Your task to perform on an android device: open app "VLC for Android" (install if not already installed) Image 0: 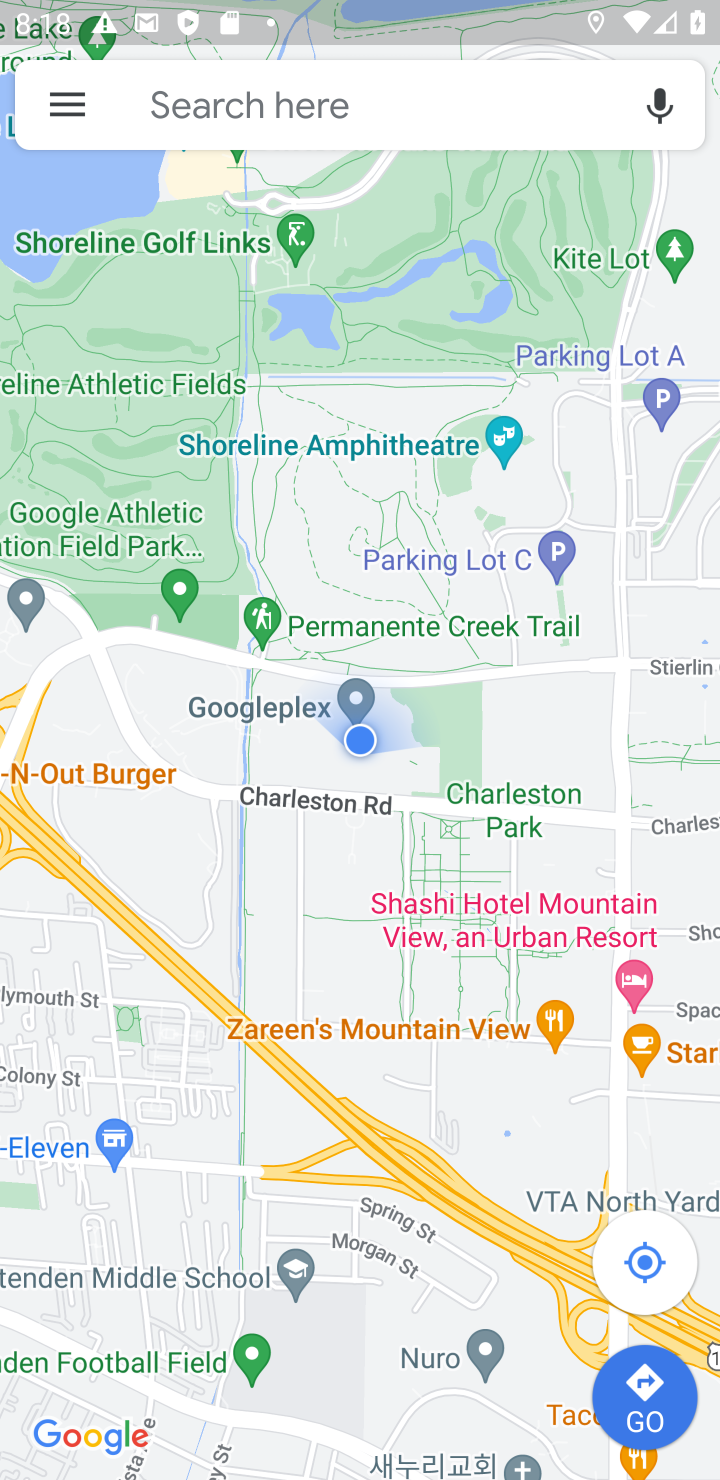
Step 0: press home button
Your task to perform on an android device: open app "VLC for Android" (install if not already installed) Image 1: 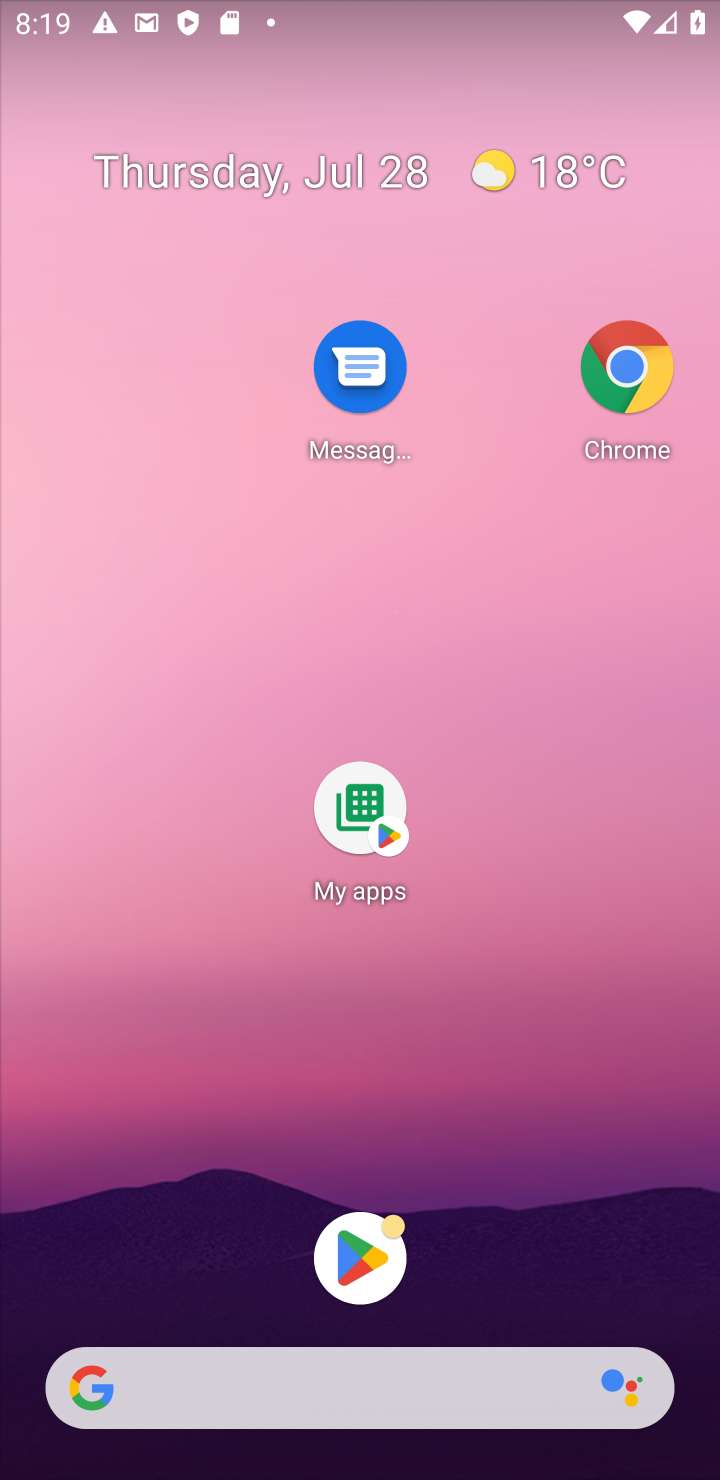
Step 1: click (354, 1243)
Your task to perform on an android device: open app "VLC for Android" (install if not already installed) Image 2: 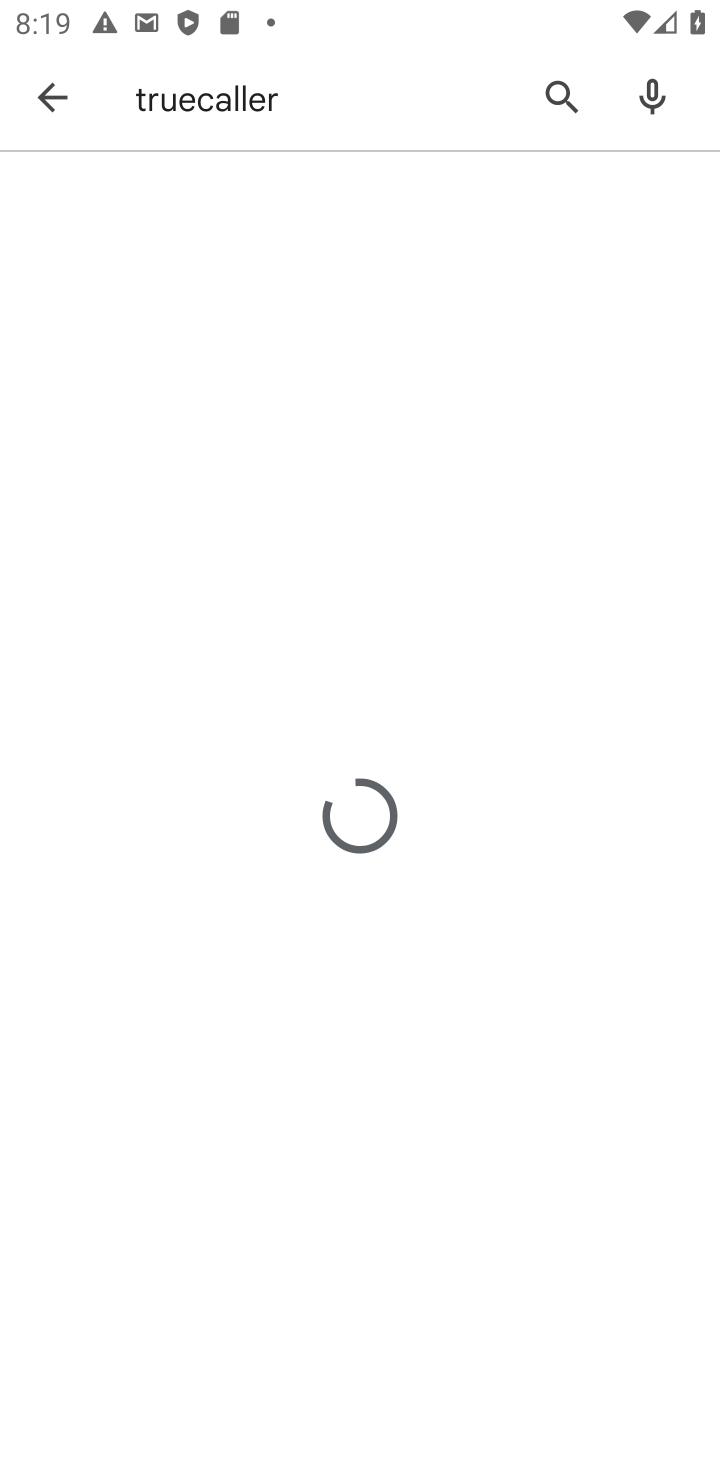
Step 2: click (559, 95)
Your task to perform on an android device: open app "VLC for Android" (install if not already installed) Image 3: 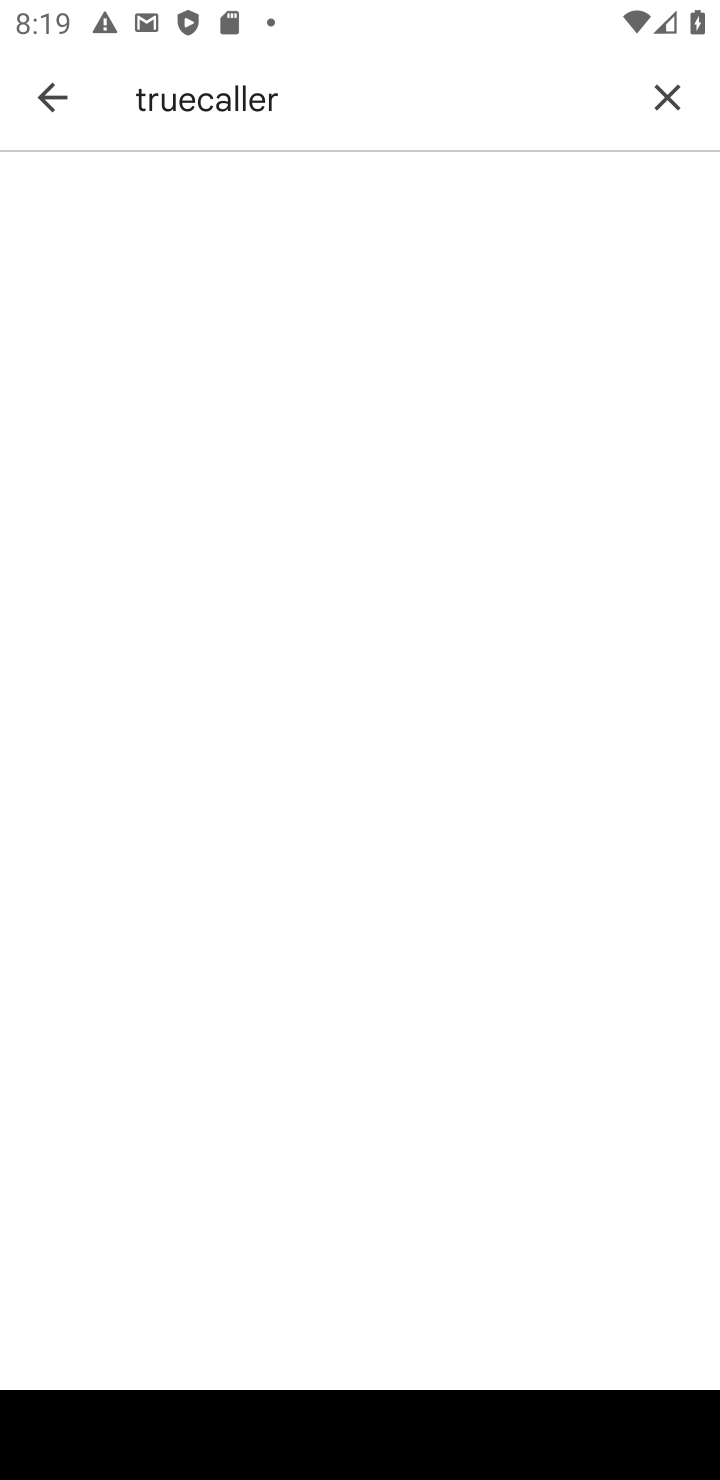
Step 3: click (559, 95)
Your task to perform on an android device: open app "VLC for Android" (install if not already installed) Image 4: 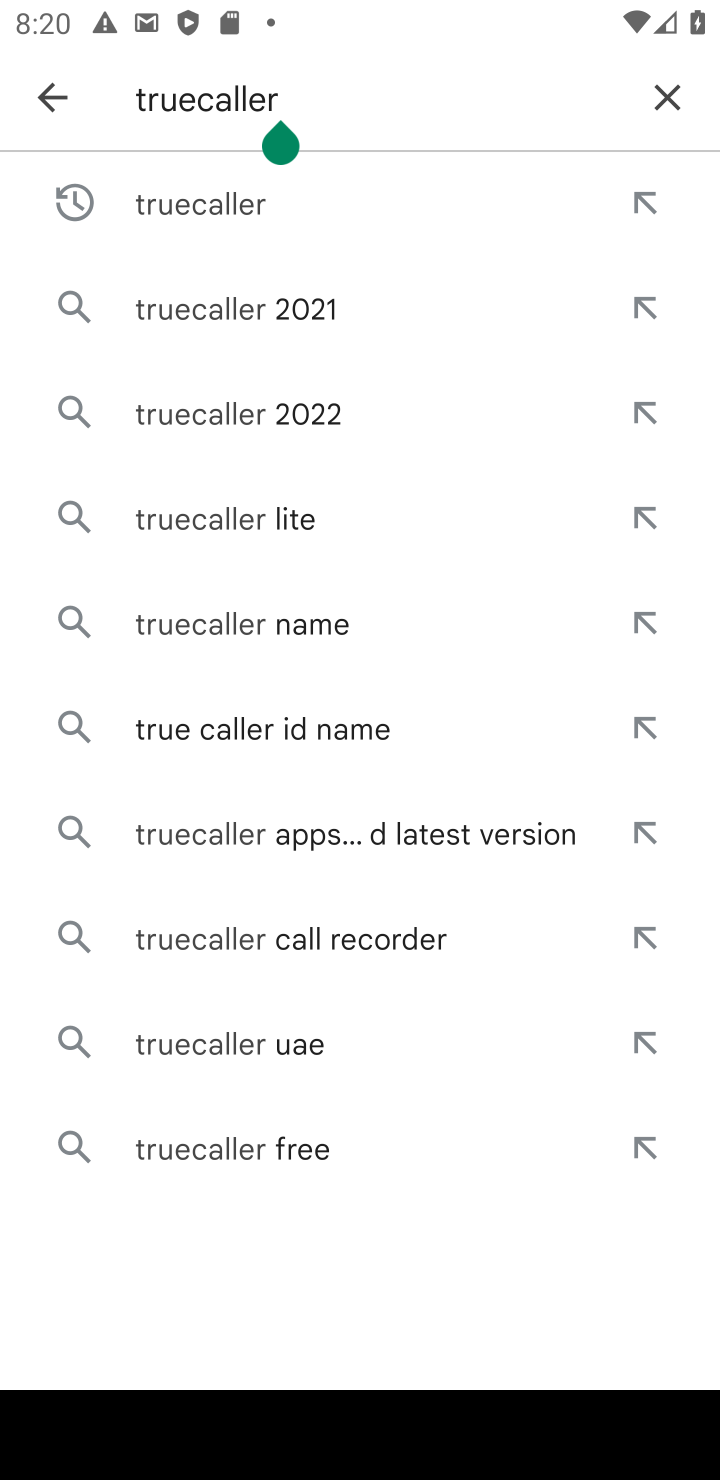
Step 4: click (662, 85)
Your task to perform on an android device: open app "VLC for Android" (install if not already installed) Image 5: 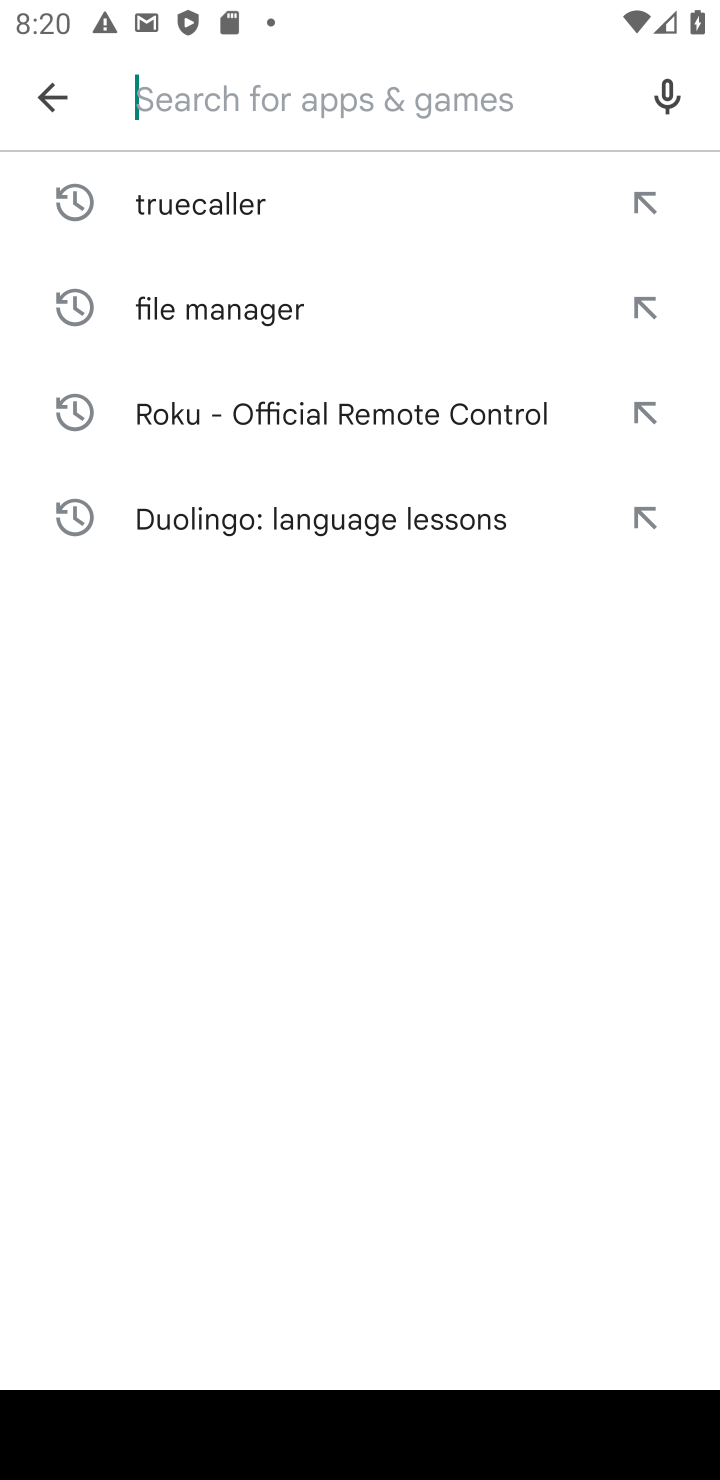
Step 5: press enter
Your task to perform on an android device: open app "VLC for Android" (install if not already installed) Image 6: 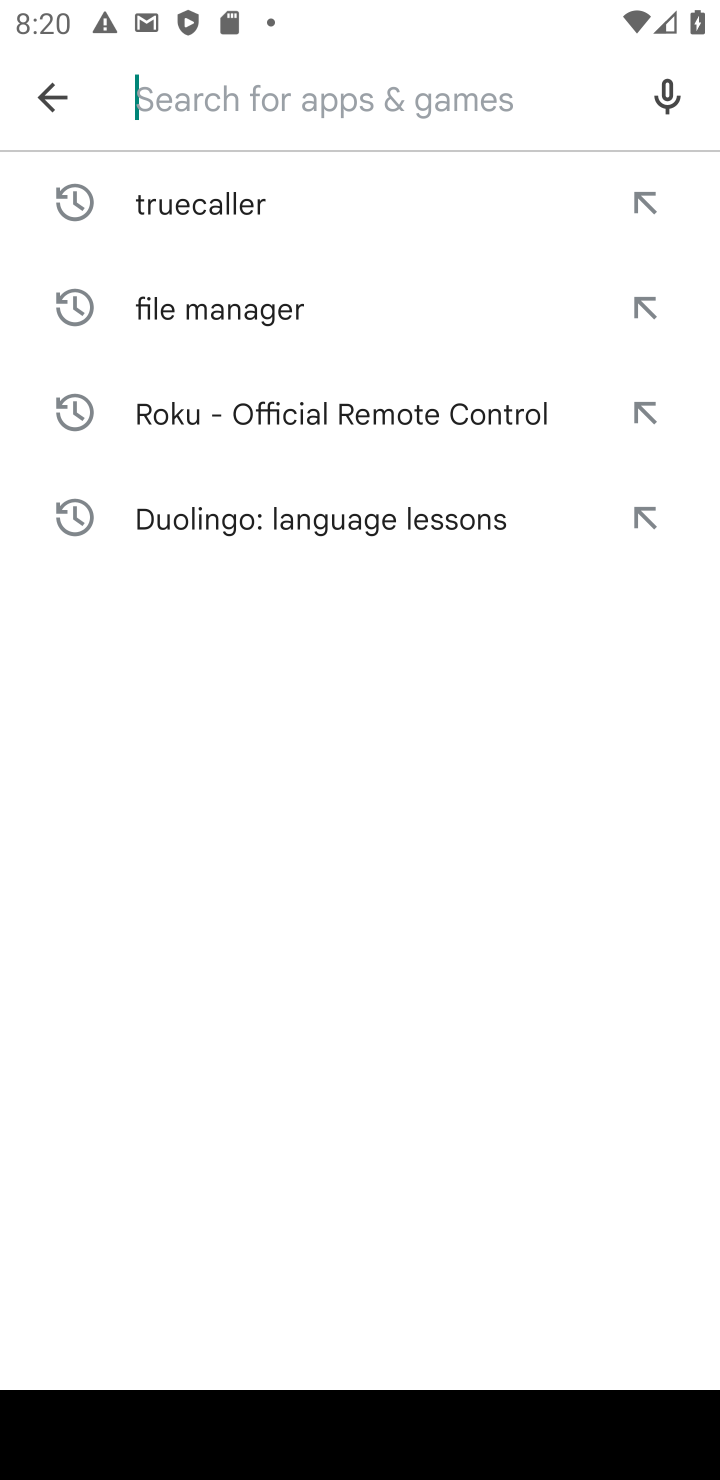
Step 6: type "VLC for Android"
Your task to perform on an android device: open app "VLC for Android" (install if not already installed) Image 7: 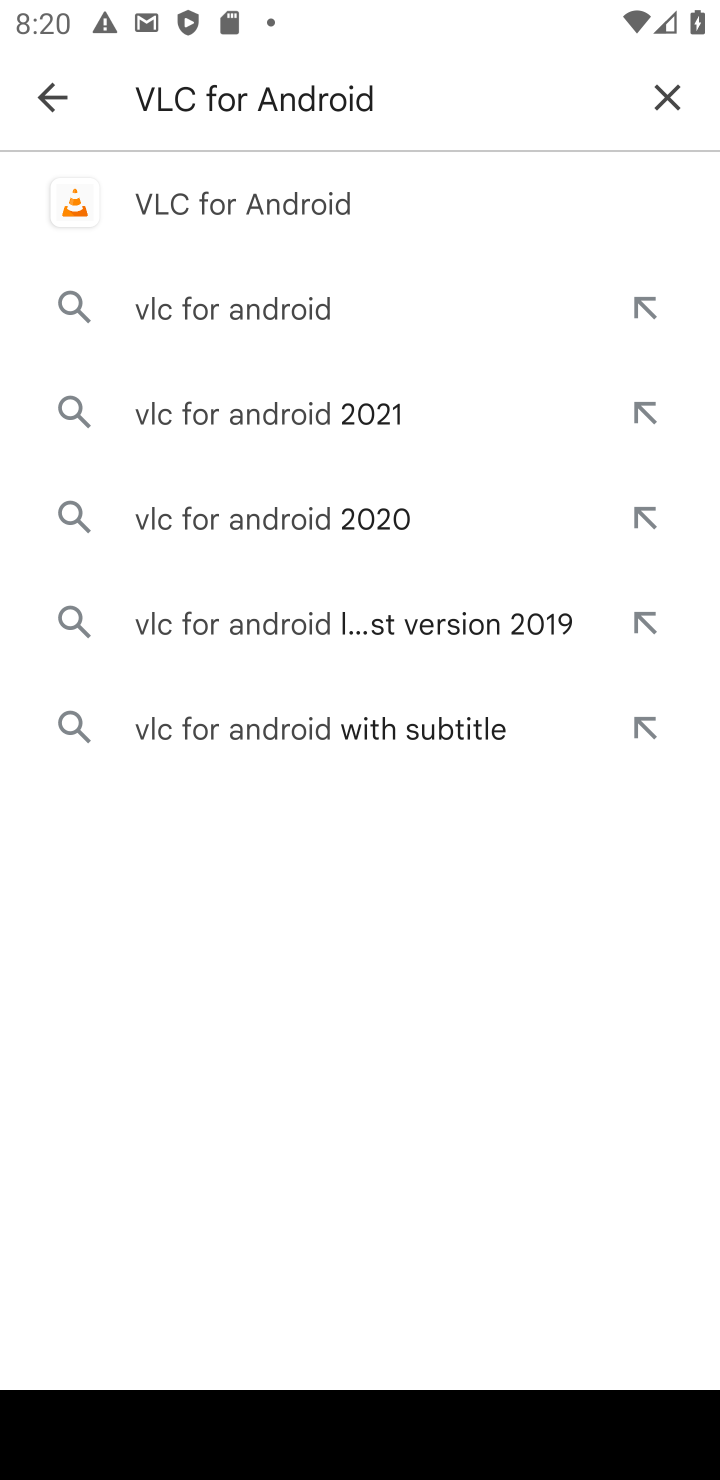
Step 7: press enter
Your task to perform on an android device: open app "VLC for Android" (install if not already installed) Image 8: 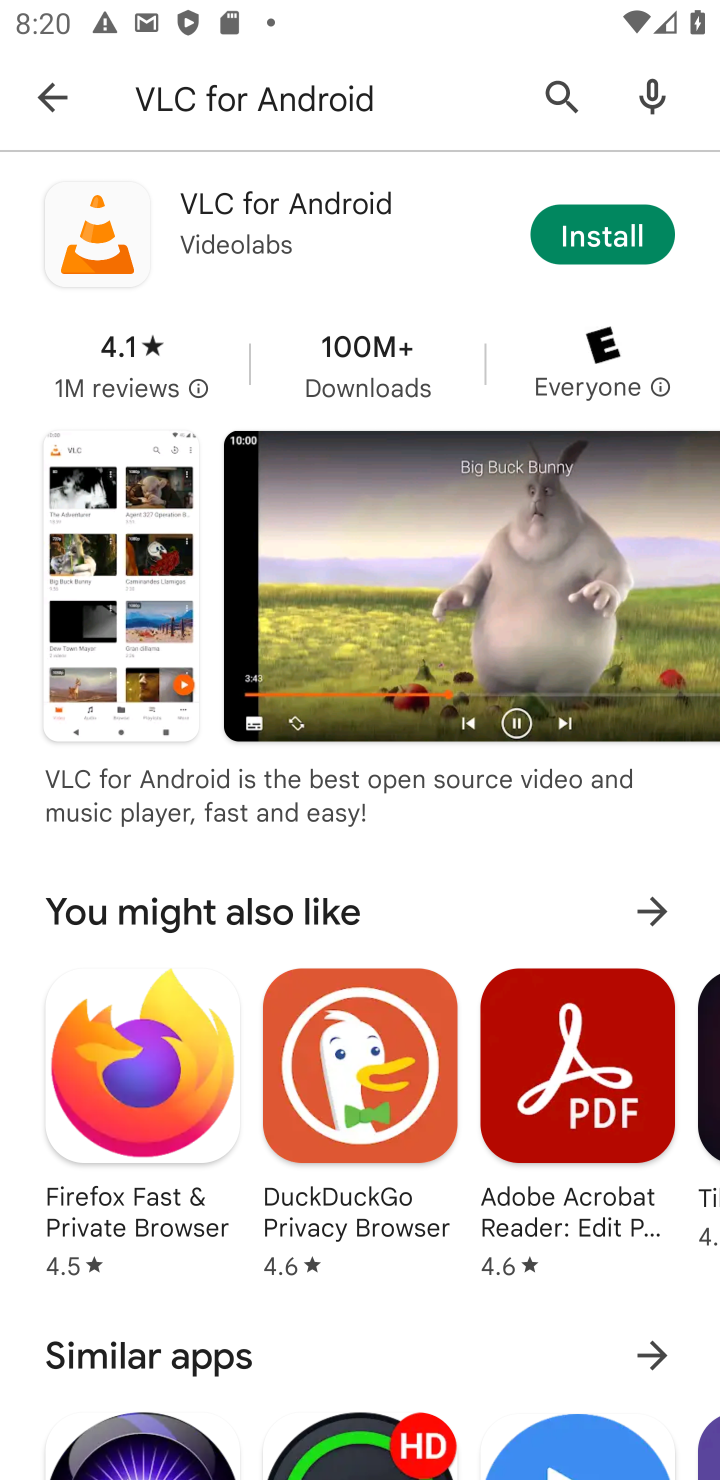
Step 8: click (593, 231)
Your task to perform on an android device: open app "VLC for Android" (install if not already installed) Image 9: 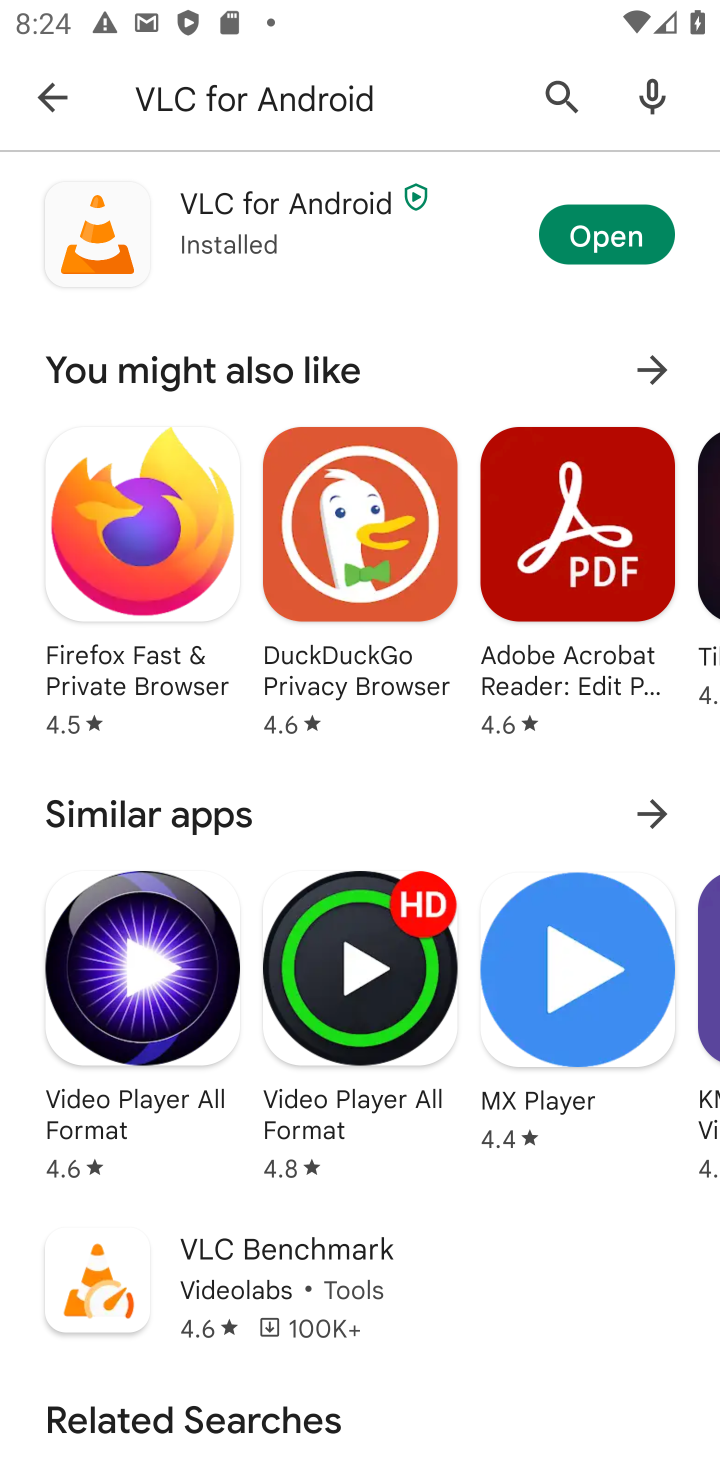
Step 9: click (578, 225)
Your task to perform on an android device: open app "VLC for Android" (install if not already installed) Image 10: 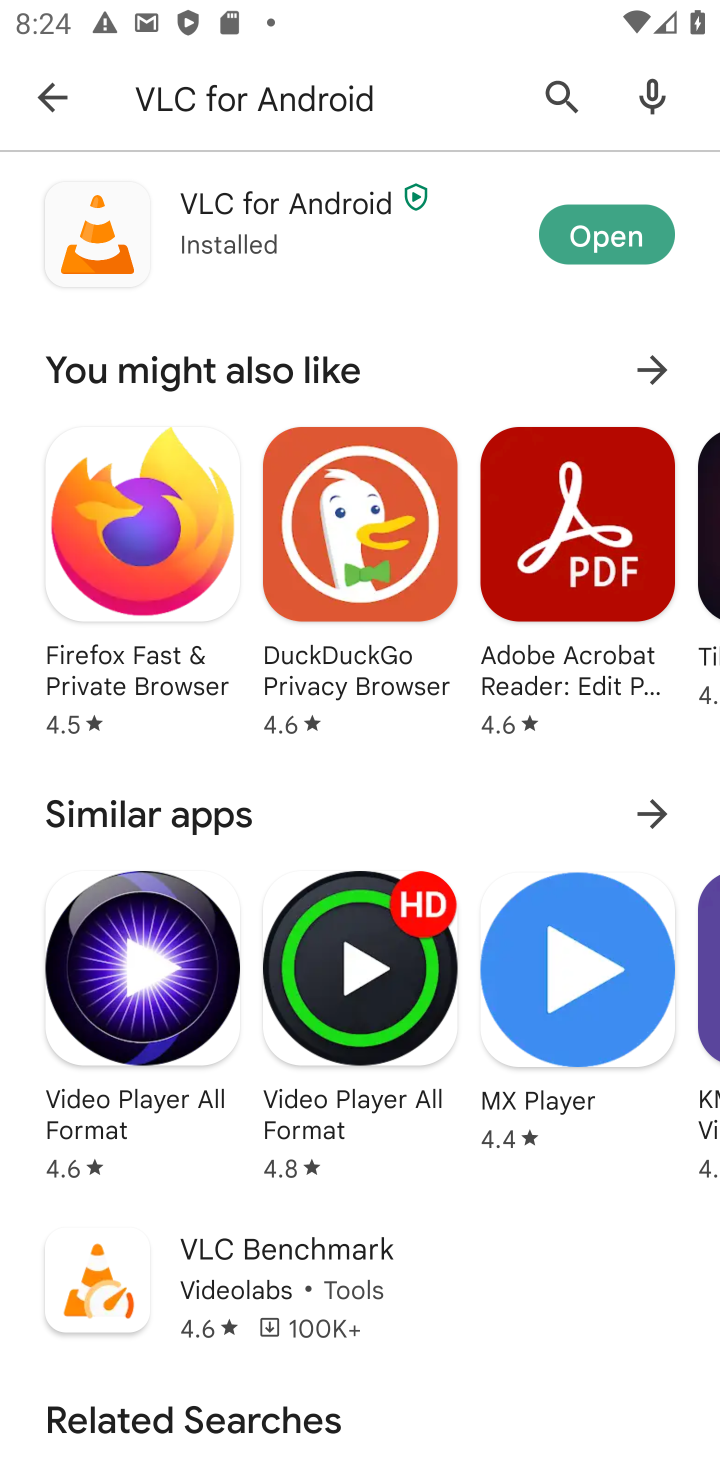
Step 10: task complete